Your task to perform on an android device: set default search engine in the chrome app Image 0: 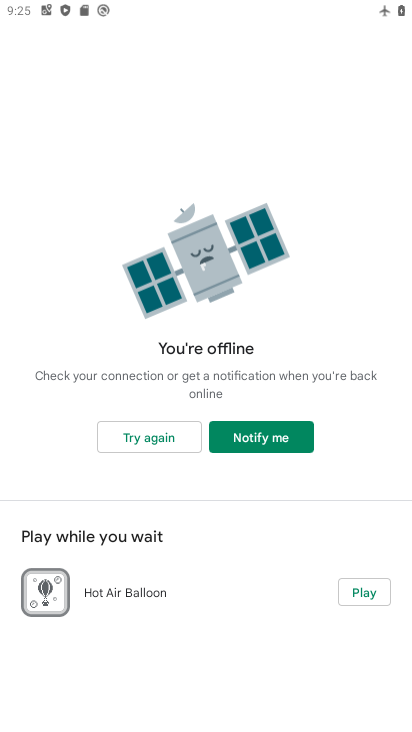
Step 0: press home button
Your task to perform on an android device: set default search engine in the chrome app Image 1: 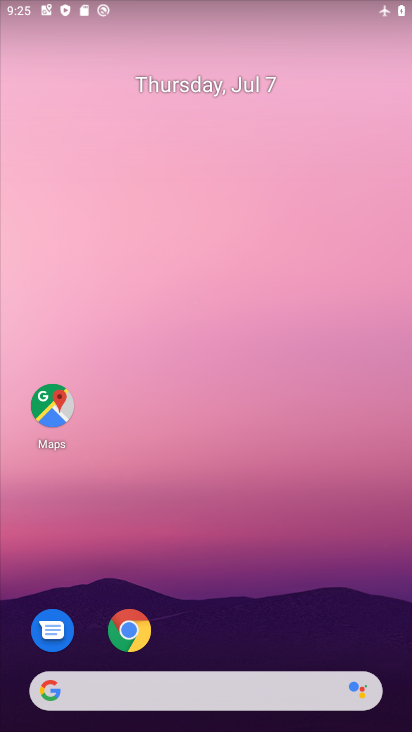
Step 1: drag from (240, 621) to (242, 106)
Your task to perform on an android device: set default search engine in the chrome app Image 2: 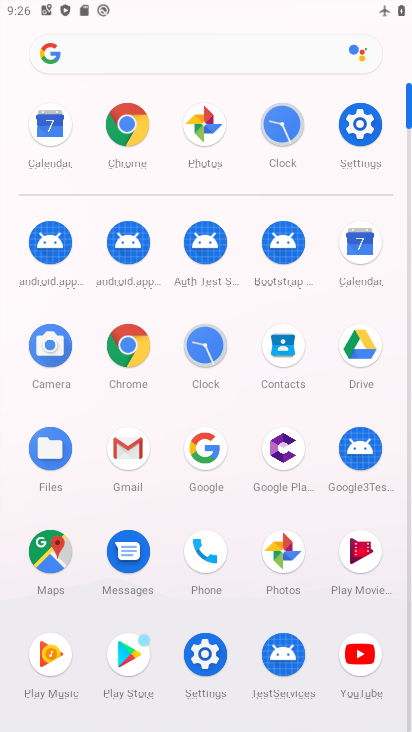
Step 2: click (127, 127)
Your task to perform on an android device: set default search engine in the chrome app Image 3: 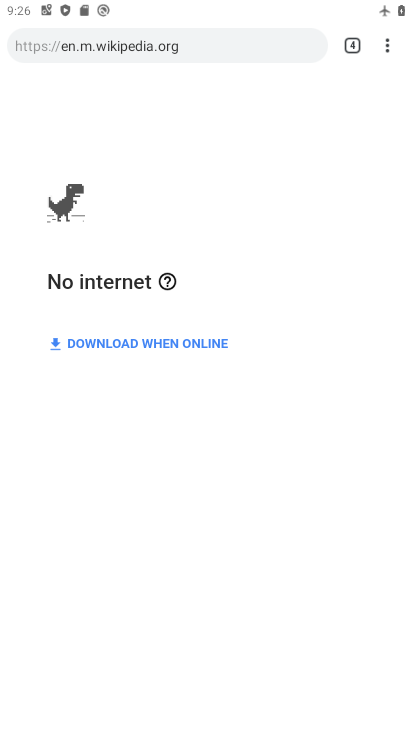
Step 3: click (382, 45)
Your task to perform on an android device: set default search engine in the chrome app Image 4: 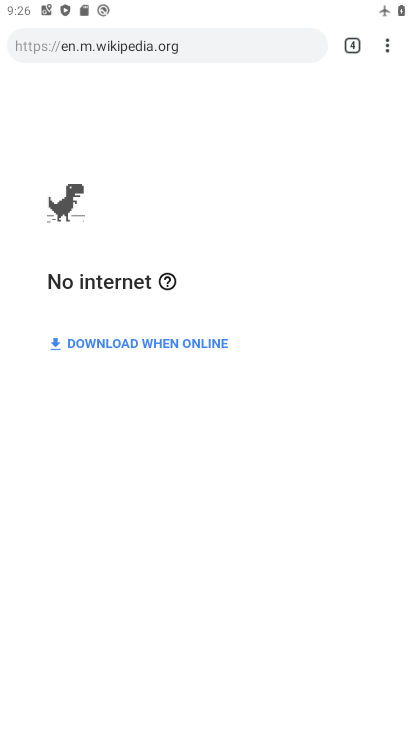
Step 4: drag from (383, 49) to (258, 562)
Your task to perform on an android device: set default search engine in the chrome app Image 5: 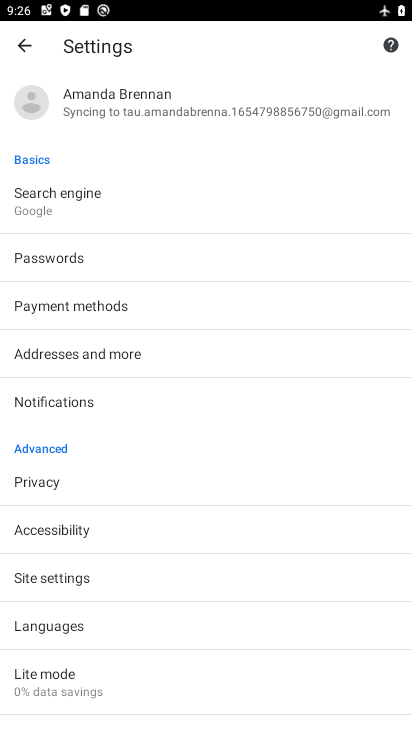
Step 5: click (130, 220)
Your task to perform on an android device: set default search engine in the chrome app Image 6: 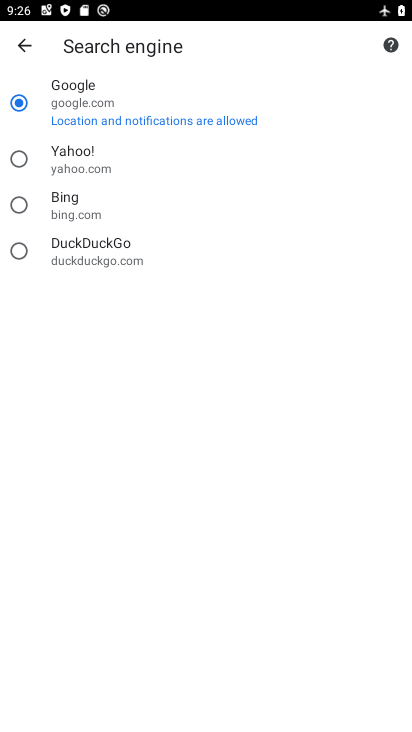
Step 6: task complete